Your task to perform on an android device: change alarm snooze length Image 0: 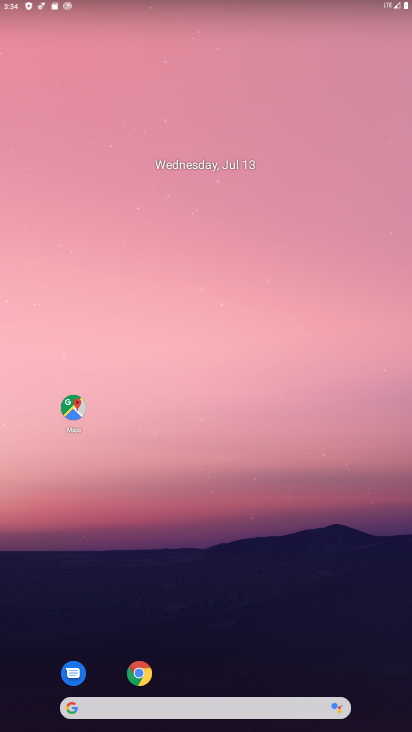
Step 0: drag from (220, 711) to (226, 123)
Your task to perform on an android device: change alarm snooze length Image 1: 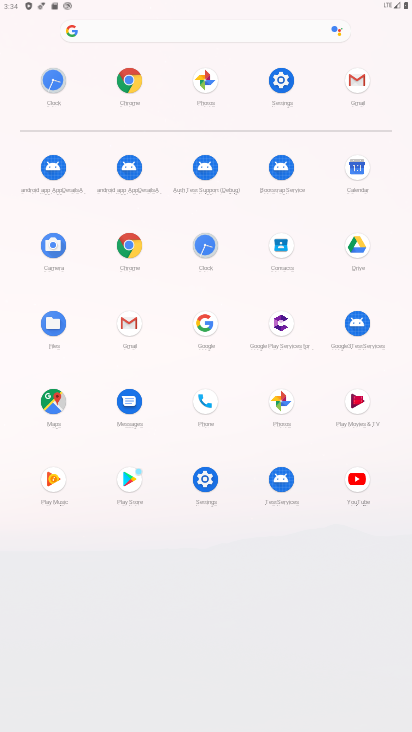
Step 1: click (202, 241)
Your task to perform on an android device: change alarm snooze length Image 2: 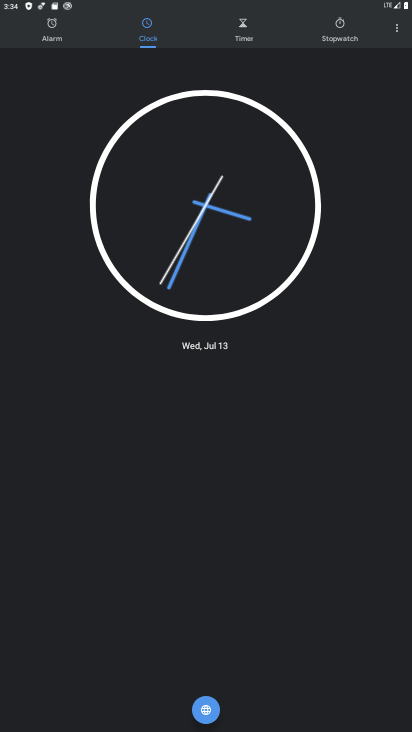
Step 2: click (398, 30)
Your task to perform on an android device: change alarm snooze length Image 3: 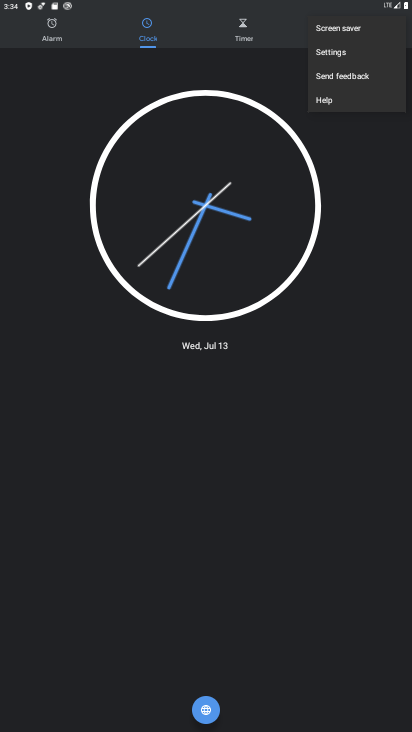
Step 3: click (338, 52)
Your task to perform on an android device: change alarm snooze length Image 4: 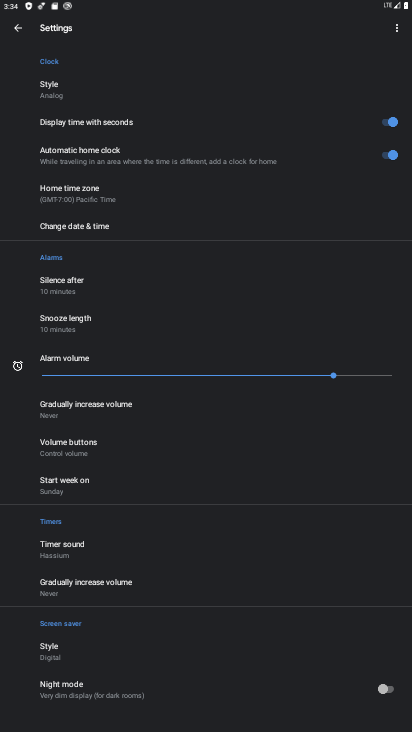
Step 4: click (73, 318)
Your task to perform on an android device: change alarm snooze length Image 5: 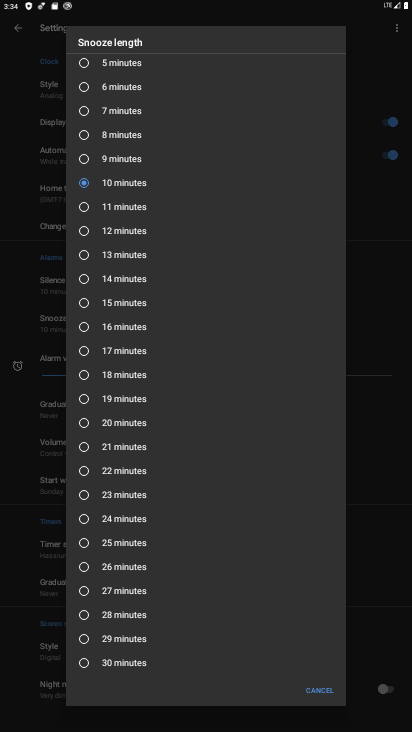
Step 5: click (86, 468)
Your task to perform on an android device: change alarm snooze length Image 6: 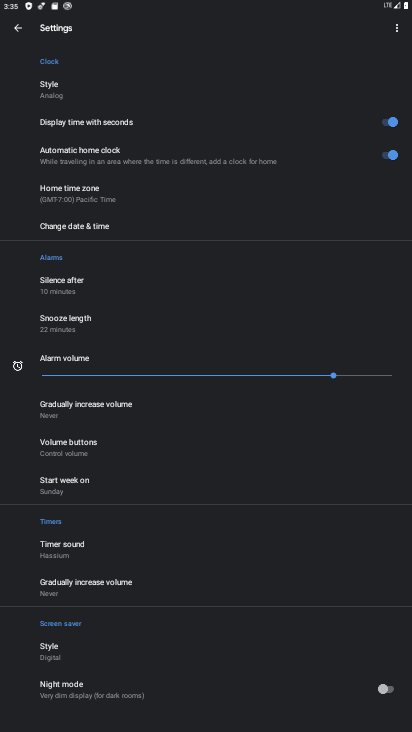
Step 6: task complete